Your task to perform on an android device: set default search engine in the chrome app Image 0: 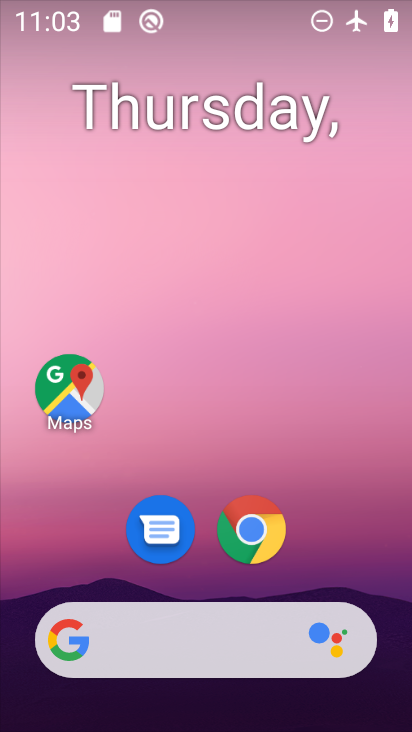
Step 0: drag from (176, 550) to (272, 22)
Your task to perform on an android device: set default search engine in the chrome app Image 1: 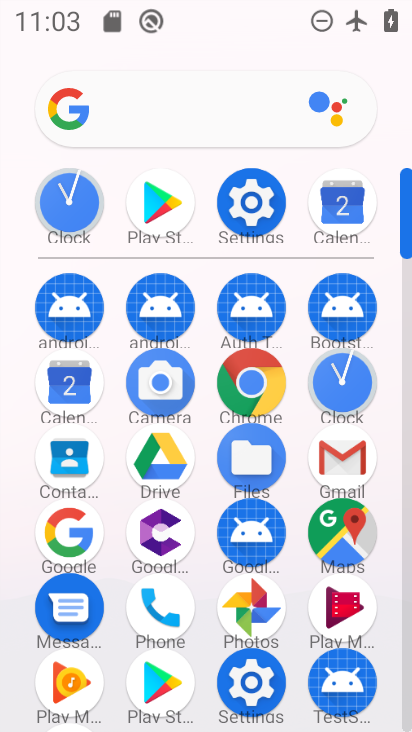
Step 1: click (238, 395)
Your task to perform on an android device: set default search engine in the chrome app Image 2: 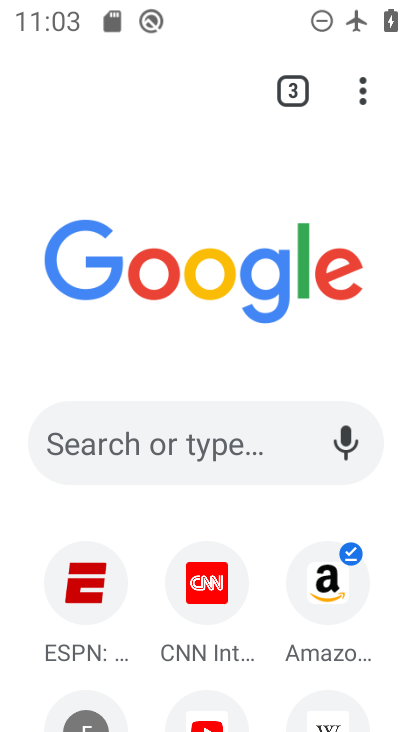
Step 2: click (366, 85)
Your task to perform on an android device: set default search engine in the chrome app Image 3: 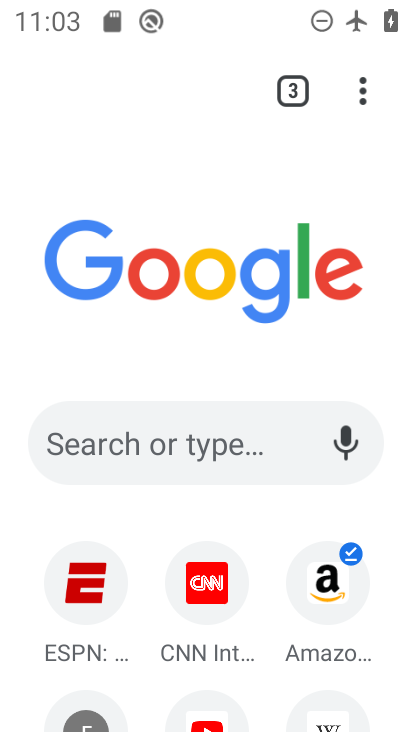
Step 3: click (366, 85)
Your task to perform on an android device: set default search engine in the chrome app Image 4: 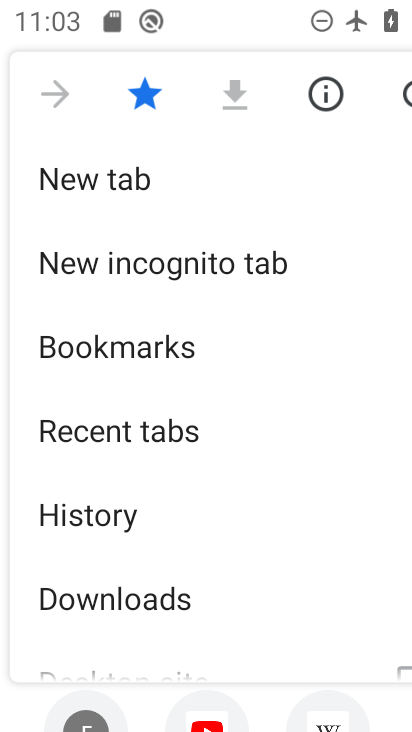
Step 4: drag from (210, 657) to (221, 23)
Your task to perform on an android device: set default search engine in the chrome app Image 5: 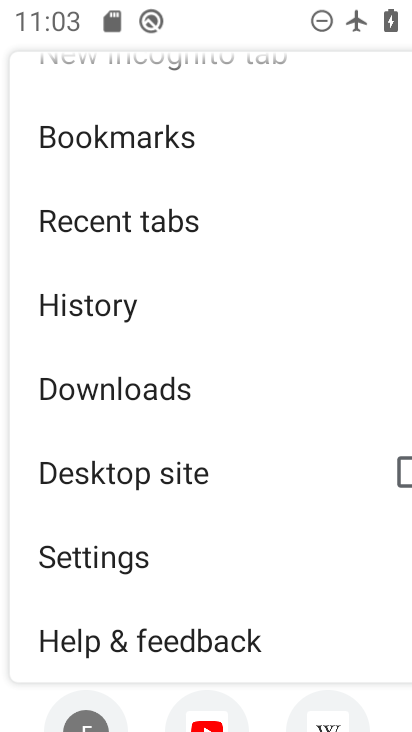
Step 5: click (149, 556)
Your task to perform on an android device: set default search engine in the chrome app Image 6: 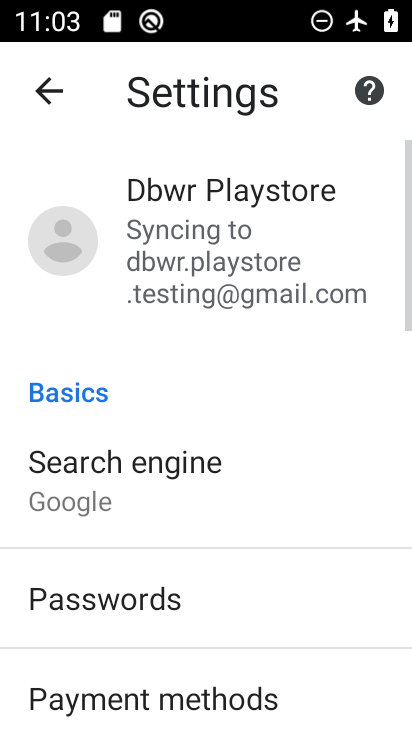
Step 6: click (233, 483)
Your task to perform on an android device: set default search engine in the chrome app Image 7: 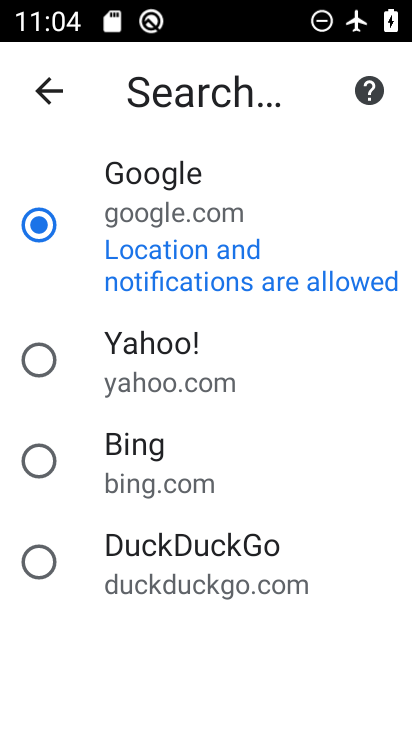
Step 7: task complete